Your task to perform on an android device: delete the emails in spam in the gmail app Image 0: 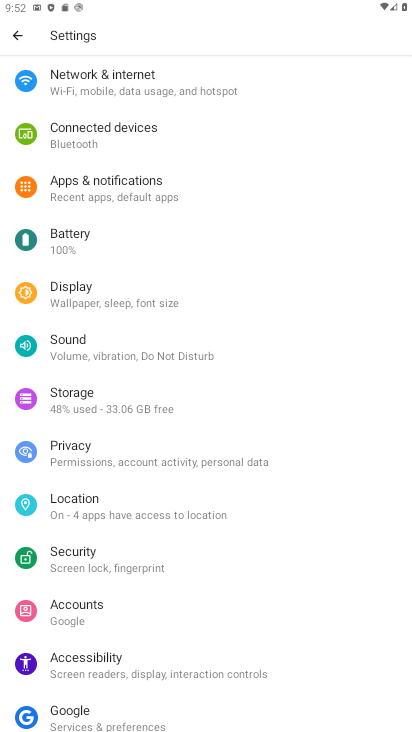
Step 0: press home button
Your task to perform on an android device: delete the emails in spam in the gmail app Image 1: 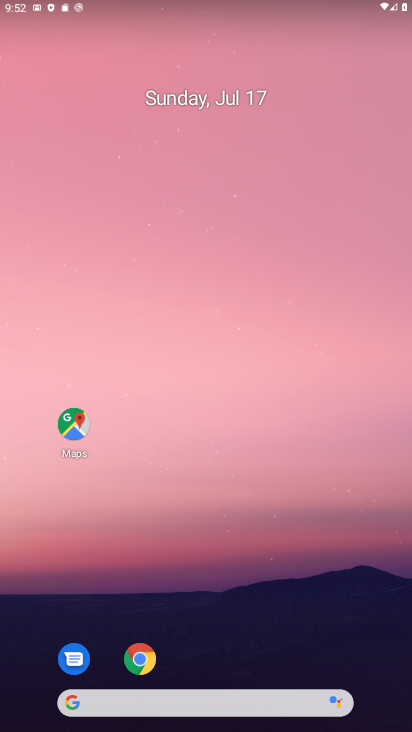
Step 1: drag from (207, 698) to (193, 295)
Your task to perform on an android device: delete the emails in spam in the gmail app Image 2: 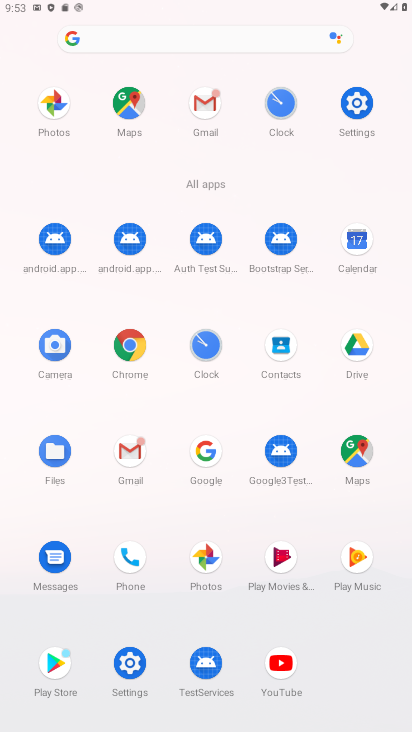
Step 2: click (126, 443)
Your task to perform on an android device: delete the emails in spam in the gmail app Image 3: 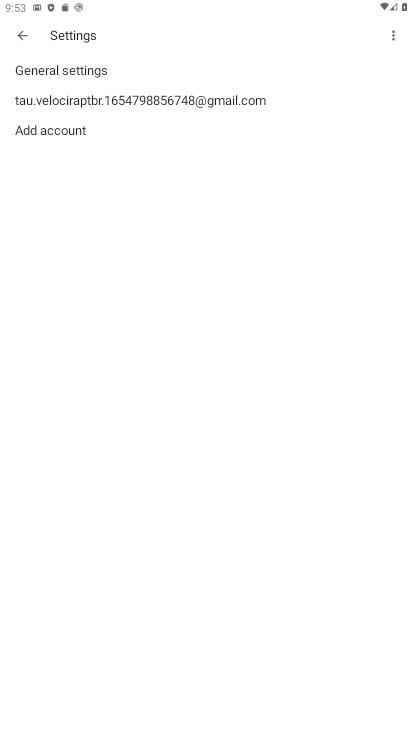
Step 3: click (15, 39)
Your task to perform on an android device: delete the emails in spam in the gmail app Image 4: 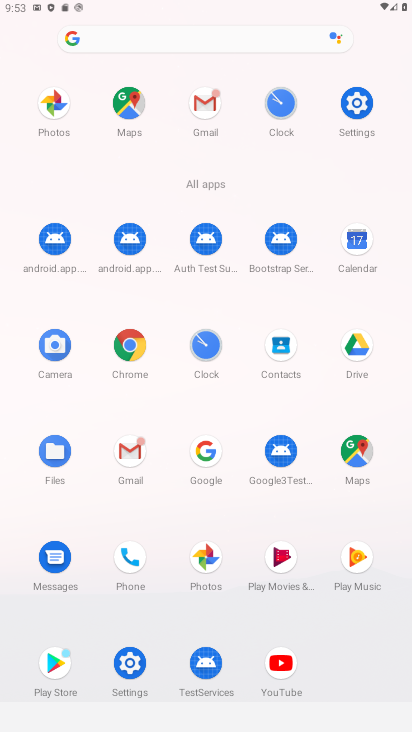
Step 4: click (213, 113)
Your task to perform on an android device: delete the emails in spam in the gmail app Image 5: 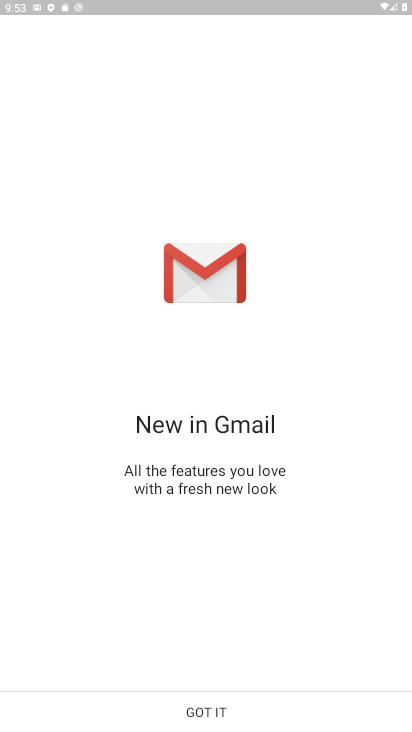
Step 5: click (199, 709)
Your task to perform on an android device: delete the emails in spam in the gmail app Image 6: 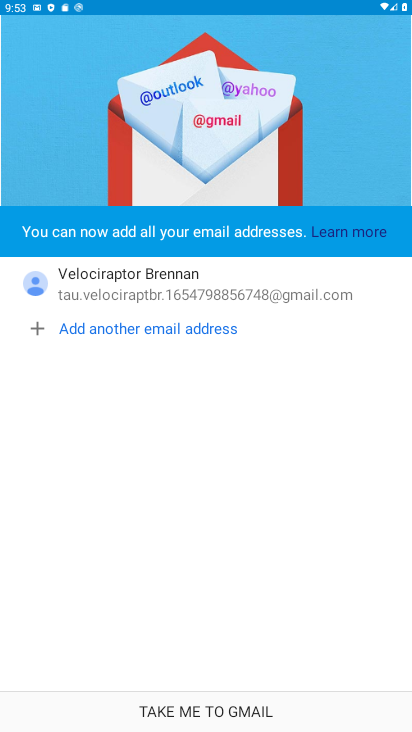
Step 6: click (242, 710)
Your task to perform on an android device: delete the emails in spam in the gmail app Image 7: 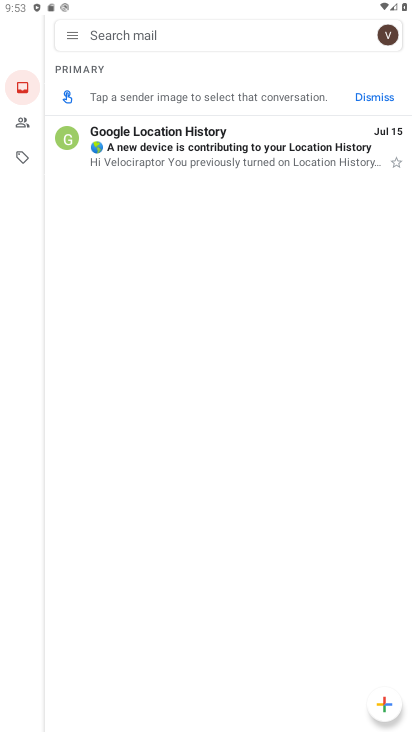
Step 7: click (74, 45)
Your task to perform on an android device: delete the emails in spam in the gmail app Image 8: 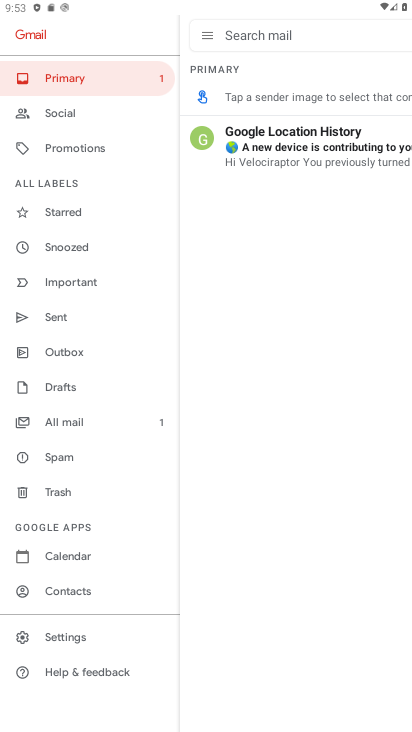
Step 8: click (73, 453)
Your task to perform on an android device: delete the emails in spam in the gmail app Image 9: 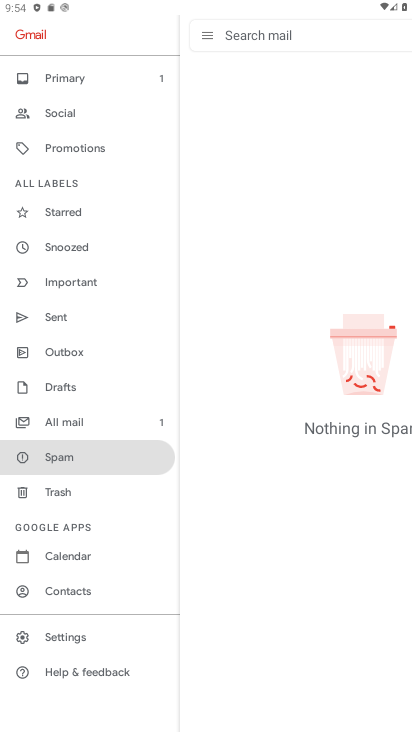
Step 9: task complete